Your task to perform on an android device: stop showing notifications on the lock screen Image 0: 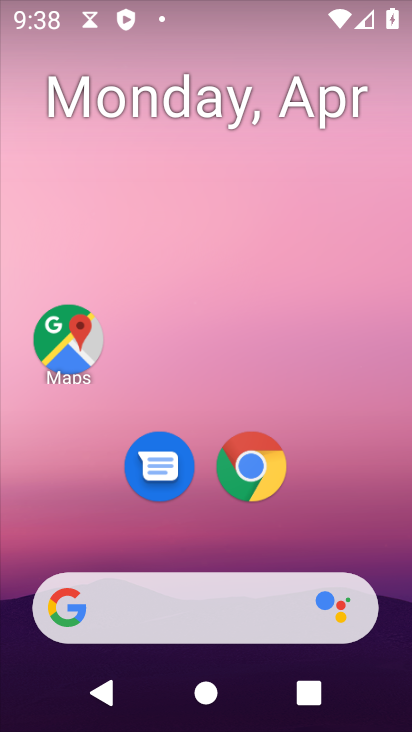
Step 0: drag from (216, 538) to (307, 97)
Your task to perform on an android device: stop showing notifications on the lock screen Image 1: 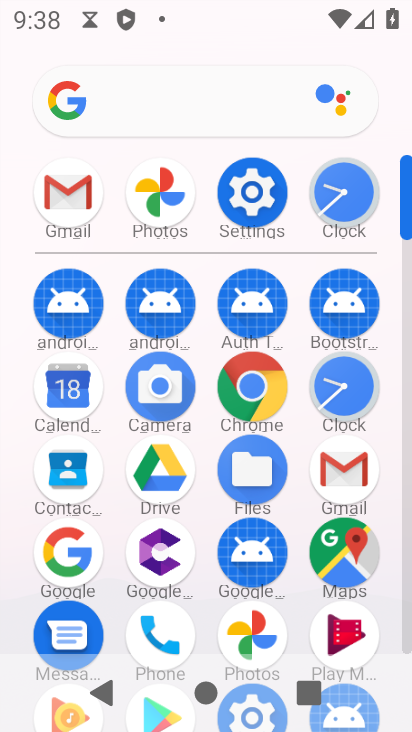
Step 1: click (263, 214)
Your task to perform on an android device: stop showing notifications on the lock screen Image 2: 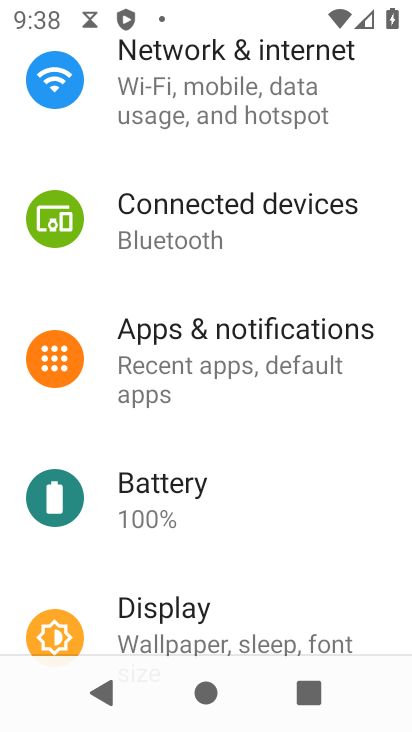
Step 2: click (251, 332)
Your task to perform on an android device: stop showing notifications on the lock screen Image 3: 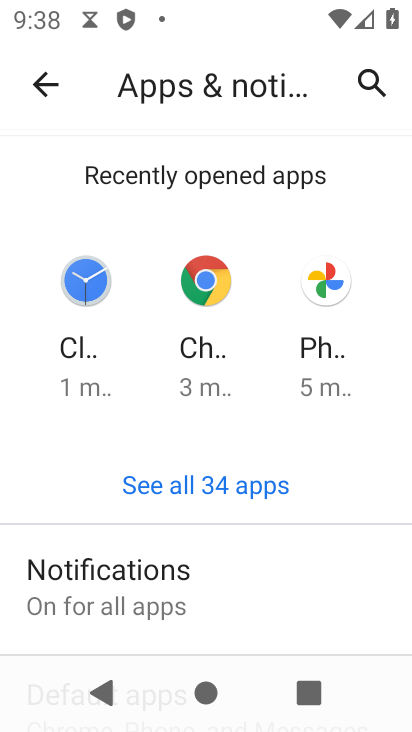
Step 3: click (129, 564)
Your task to perform on an android device: stop showing notifications on the lock screen Image 4: 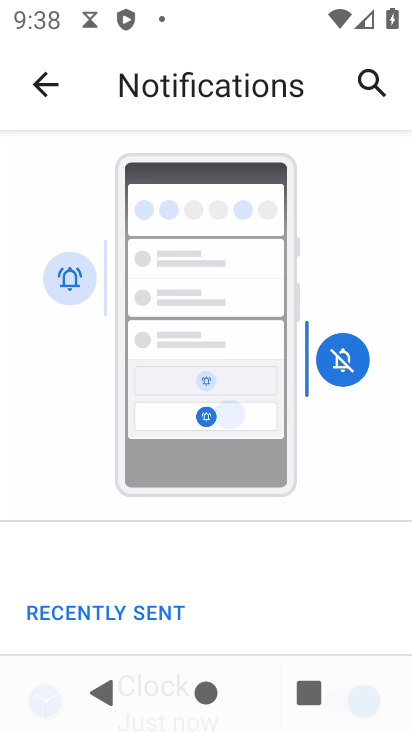
Step 4: click (304, 390)
Your task to perform on an android device: stop showing notifications on the lock screen Image 5: 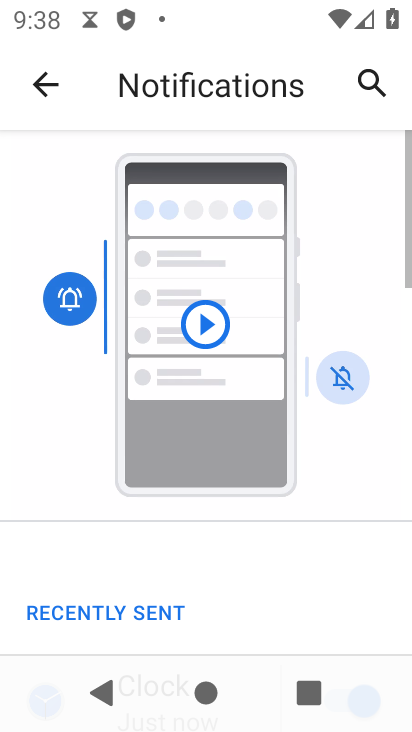
Step 5: drag from (246, 600) to (289, 371)
Your task to perform on an android device: stop showing notifications on the lock screen Image 6: 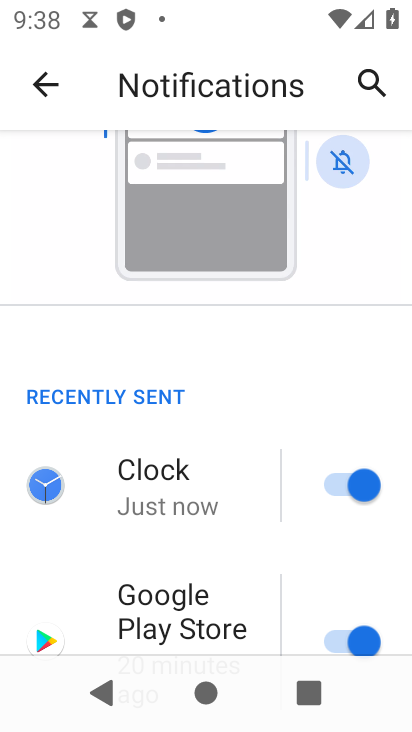
Step 6: drag from (229, 541) to (259, 385)
Your task to perform on an android device: stop showing notifications on the lock screen Image 7: 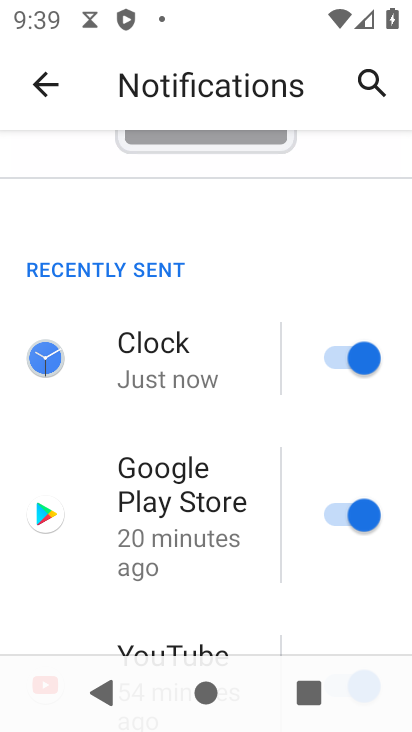
Step 7: drag from (224, 576) to (242, 398)
Your task to perform on an android device: stop showing notifications on the lock screen Image 8: 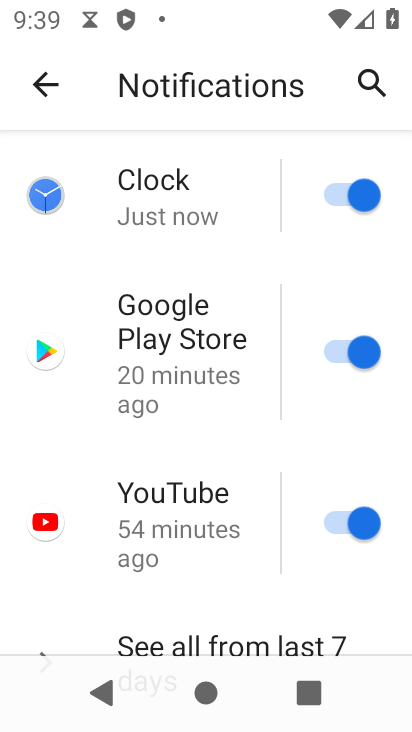
Step 8: drag from (207, 590) to (246, 410)
Your task to perform on an android device: stop showing notifications on the lock screen Image 9: 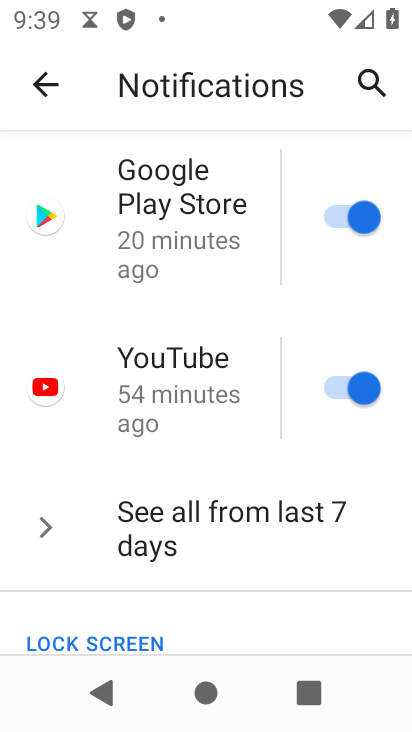
Step 9: drag from (200, 588) to (244, 425)
Your task to perform on an android device: stop showing notifications on the lock screen Image 10: 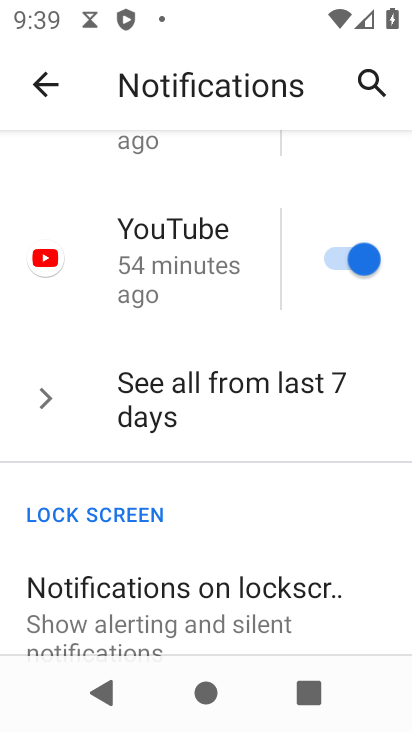
Step 10: drag from (216, 530) to (245, 418)
Your task to perform on an android device: stop showing notifications on the lock screen Image 11: 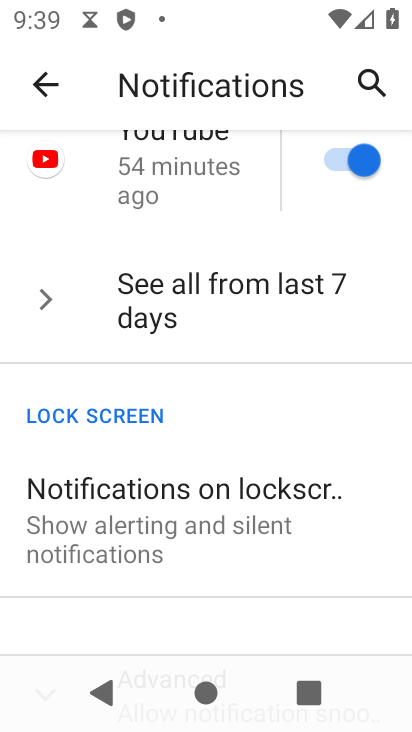
Step 11: click (221, 484)
Your task to perform on an android device: stop showing notifications on the lock screen Image 12: 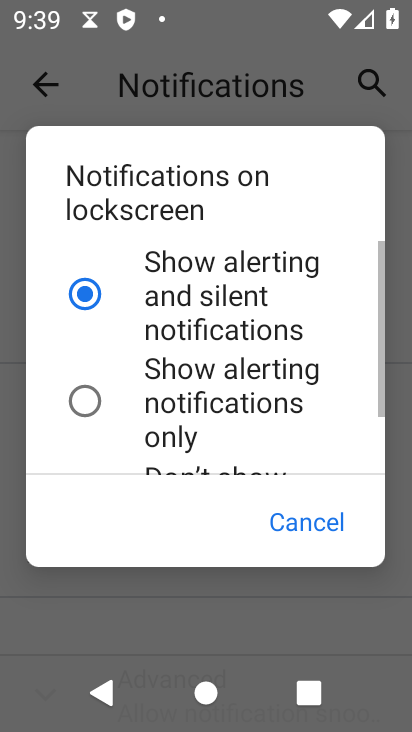
Step 12: drag from (226, 442) to (232, 273)
Your task to perform on an android device: stop showing notifications on the lock screen Image 13: 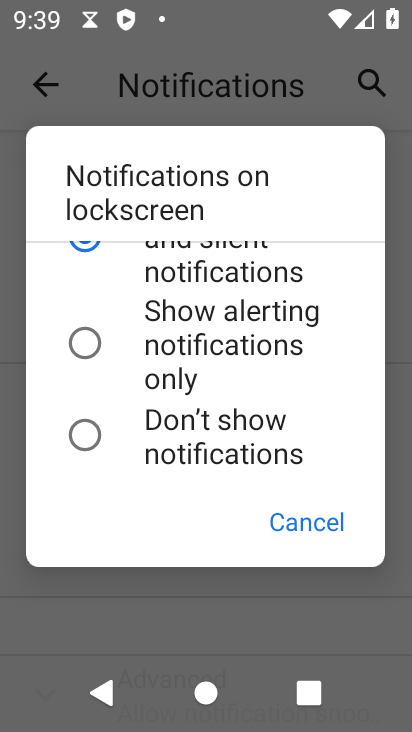
Step 13: click (91, 436)
Your task to perform on an android device: stop showing notifications on the lock screen Image 14: 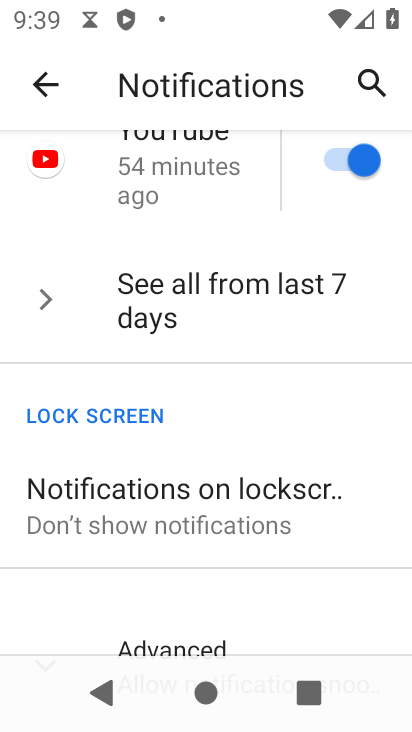
Step 14: task complete